Your task to perform on an android device: toggle airplane mode Image 0: 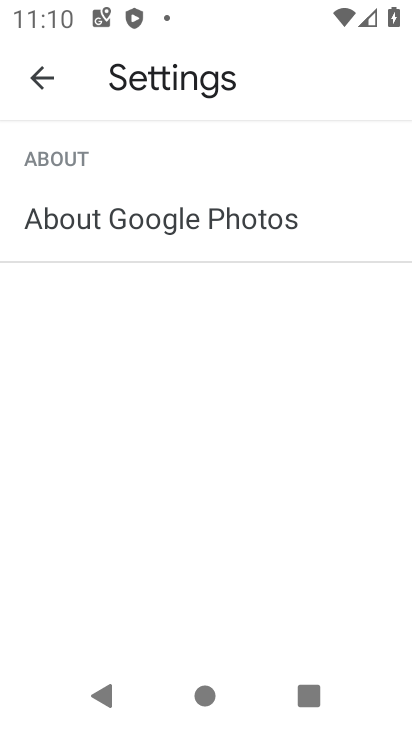
Step 0: press home button
Your task to perform on an android device: toggle airplane mode Image 1: 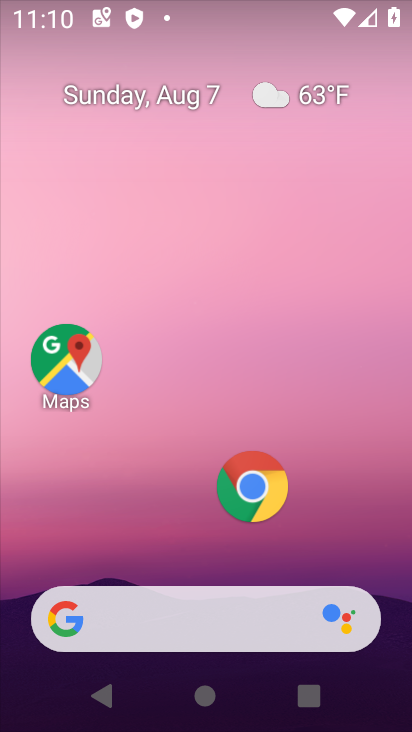
Step 1: drag from (140, 345) to (185, 115)
Your task to perform on an android device: toggle airplane mode Image 2: 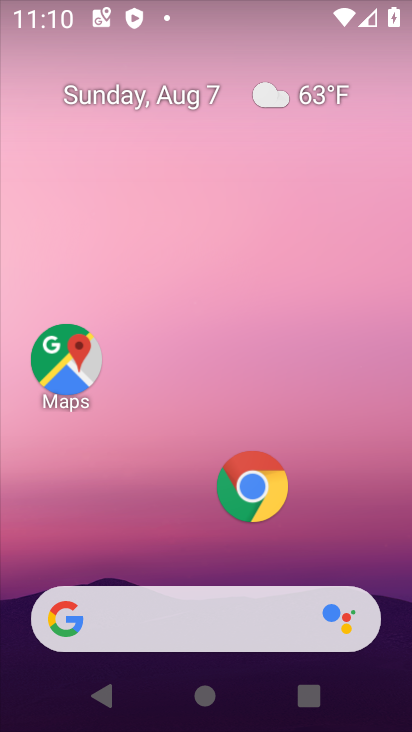
Step 2: drag from (128, 688) to (224, 52)
Your task to perform on an android device: toggle airplane mode Image 3: 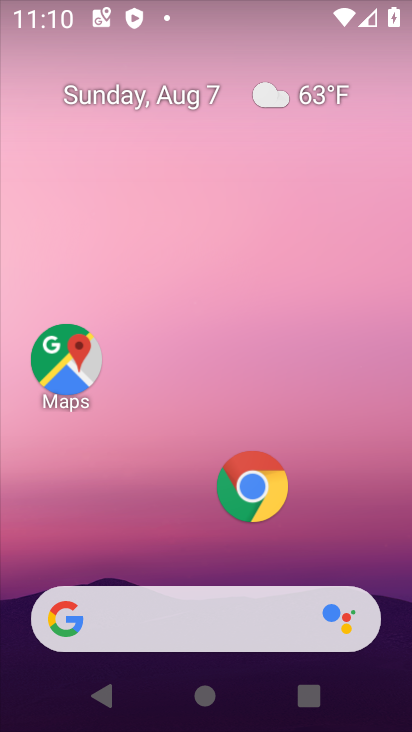
Step 3: drag from (163, 587) to (248, 27)
Your task to perform on an android device: toggle airplane mode Image 4: 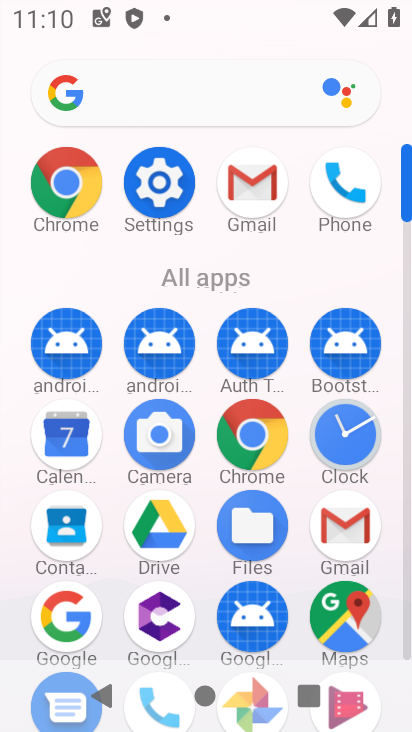
Step 4: click (158, 187)
Your task to perform on an android device: toggle airplane mode Image 5: 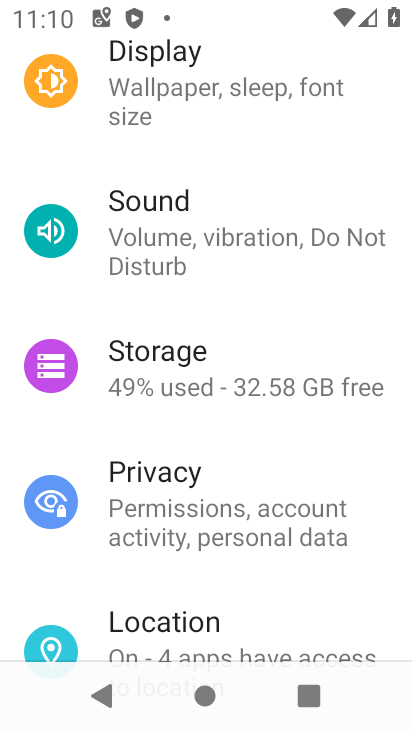
Step 5: drag from (291, 153) to (304, 606)
Your task to perform on an android device: toggle airplane mode Image 6: 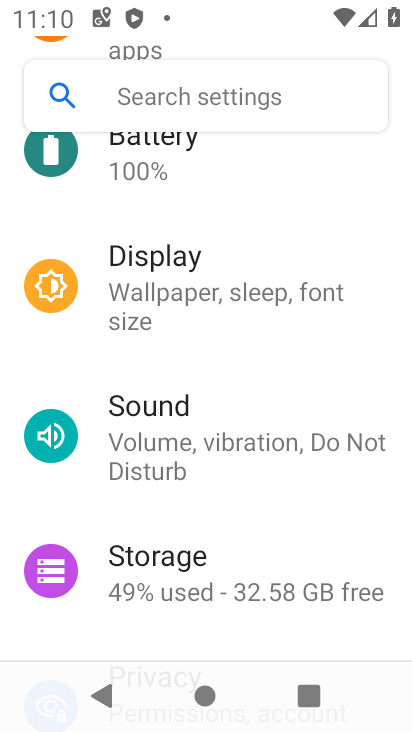
Step 6: drag from (291, 191) to (295, 655)
Your task to perform on an android device: toggle airplane mode Image 7: 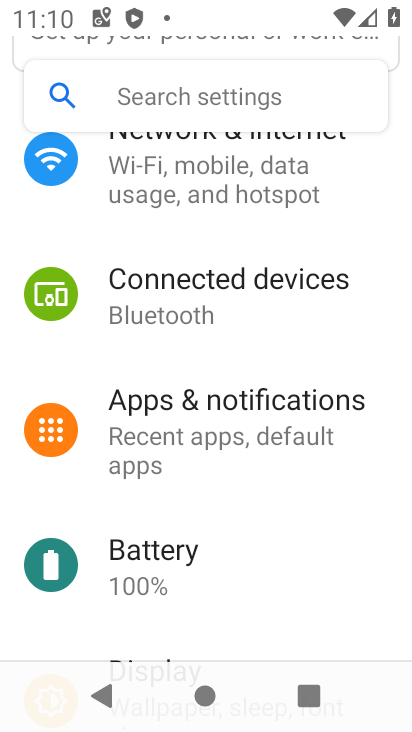
Step 7: click (276, 177)
Your task to perform on an android device: toggle airplane mode Image 8: 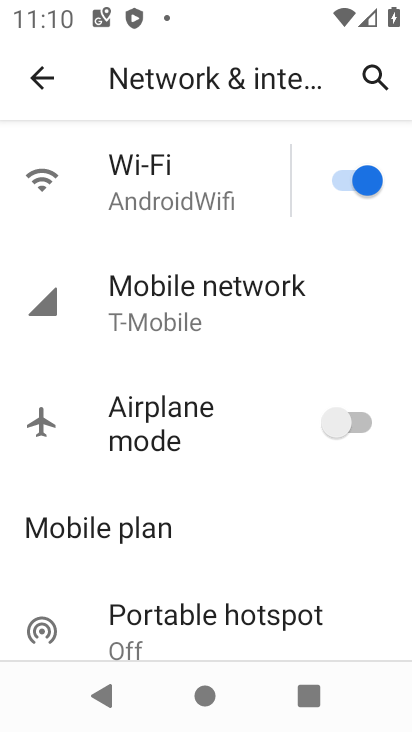
Step 8: click (350, 432)
Your task to perform on an android device: toggle airplane mode Image 9: 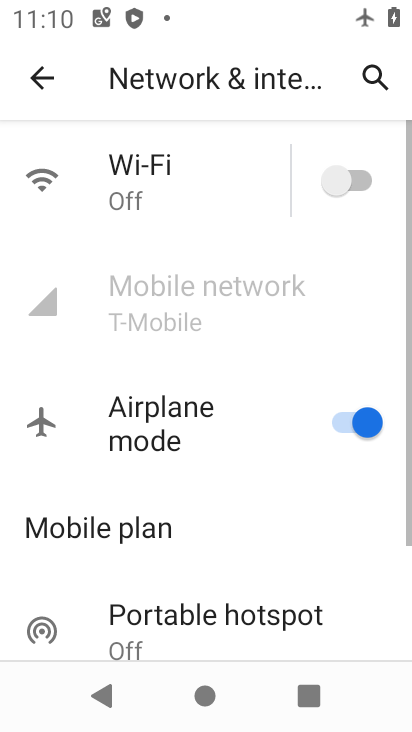
Step 9: task complete